Your task to perform on an android device: Go to eBay Image 0: 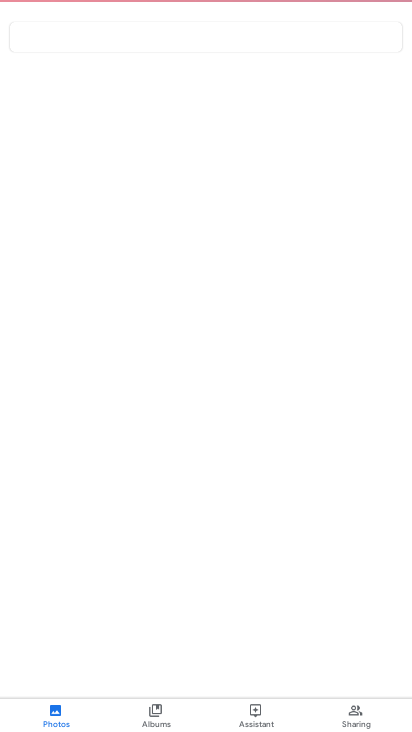
Step 0: press back button
Your task to perform on an android device: Go to eBay Image 1: 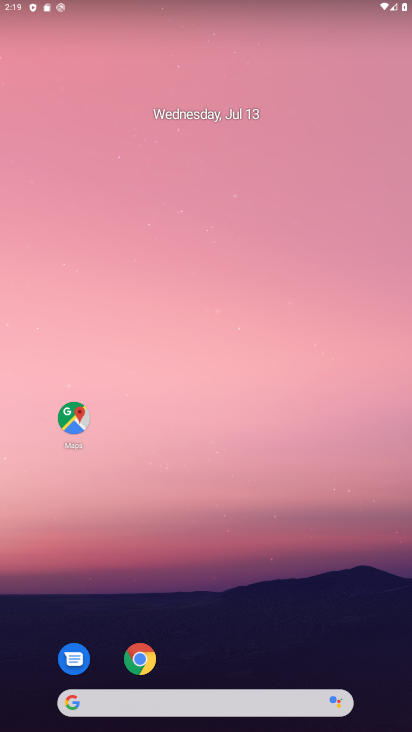
Step 1: press home button
Your task to perform on an android device: Go to eBay Image 2: 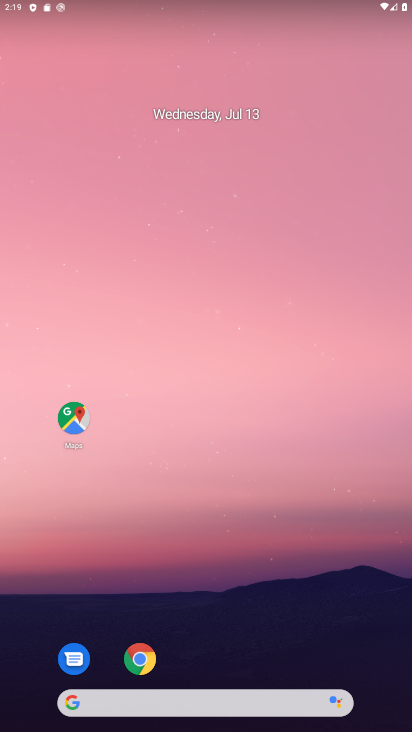
Step 2: click (137, 655)
Your task to perform on an android device: Go to eBay Image 3: 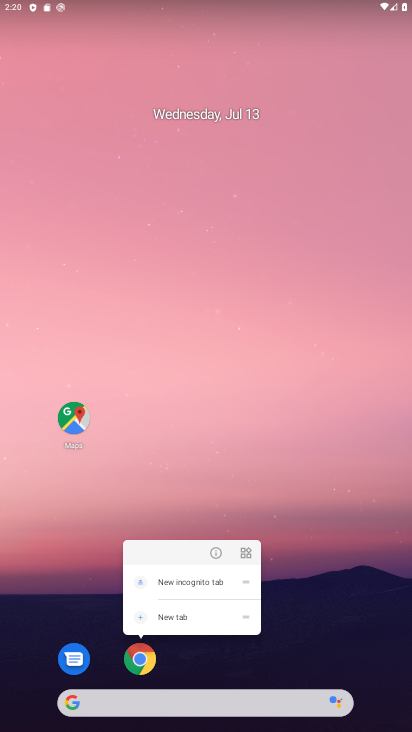
Step 3: click (136, 660)
Your task to perform on an android device: Go to eBay Image 4: 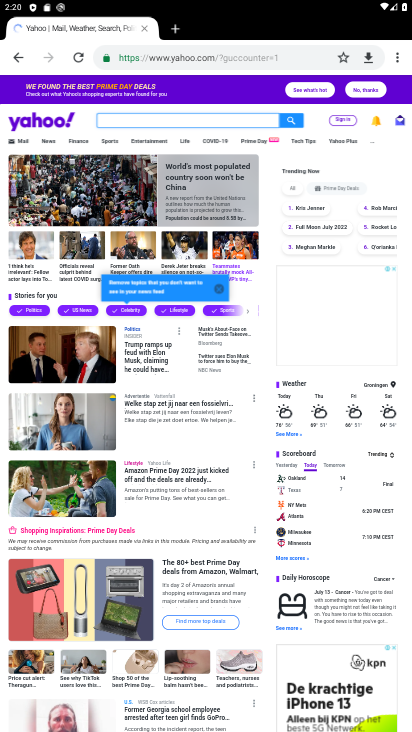
Step 4: click (171, 25)
Your task to perform on an android device: Go to eBay Image 5: 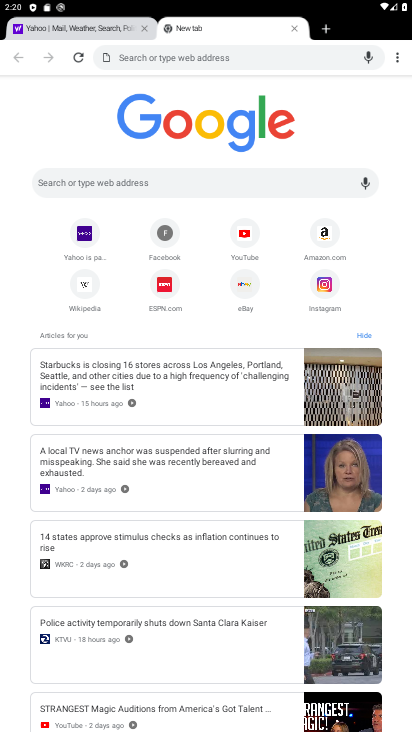
Step 5: click (247, 277)
Your task to perform on an android device: Go to eBay Image 6: 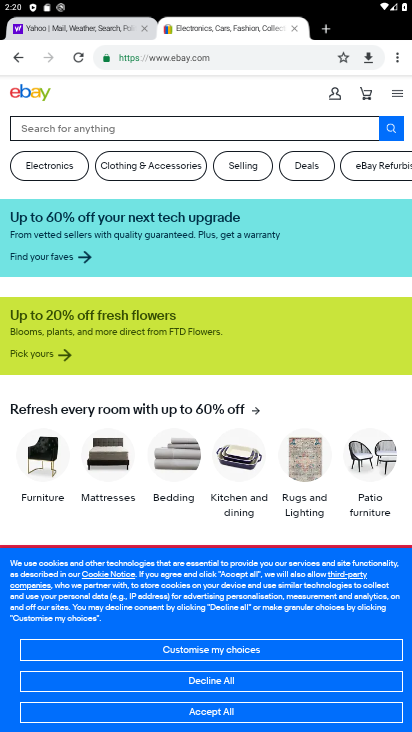
Step 6: click (220, 711)
Your task to perform on an android device: Go to eBay Image 7: 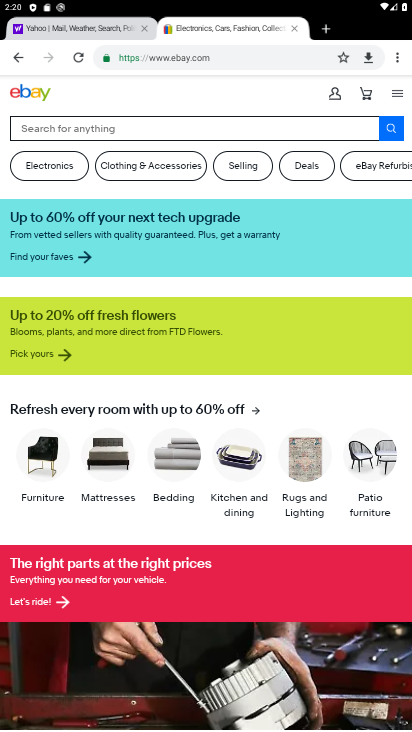
Step 7: task complete